Your task to perform on an android device: empty trash in the gmail app Image 0: 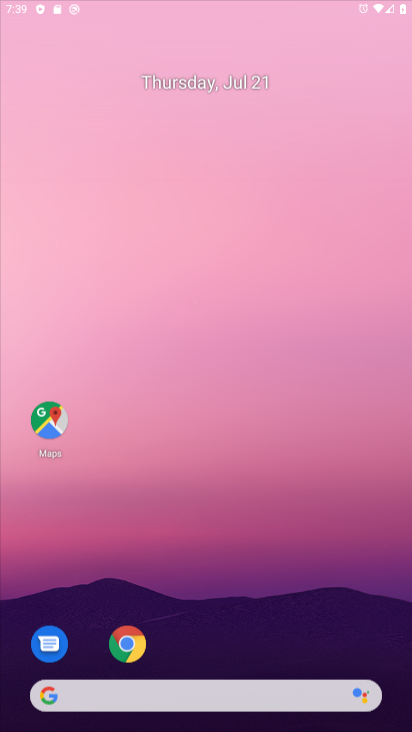
Step 0: click (244, 390)
Your task to perform on an android device: empty trash in the gmail app Image 1: 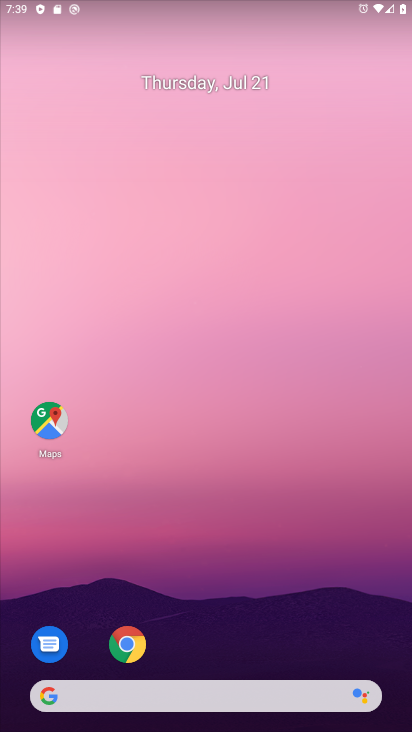
Step 1: drag from (229, 644) to (218, 212)
Your task to perform on an android device: empty trash in the gmail app Image 2: 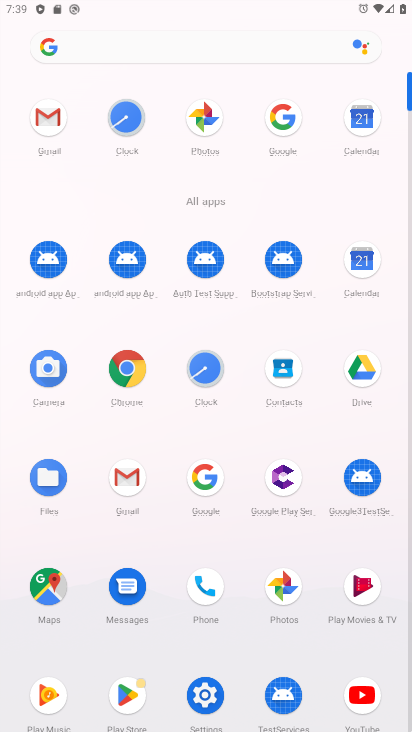
Step 2: click (121, 478)
Your task to perform on an android device: empty trash in the gmail app Image 3: 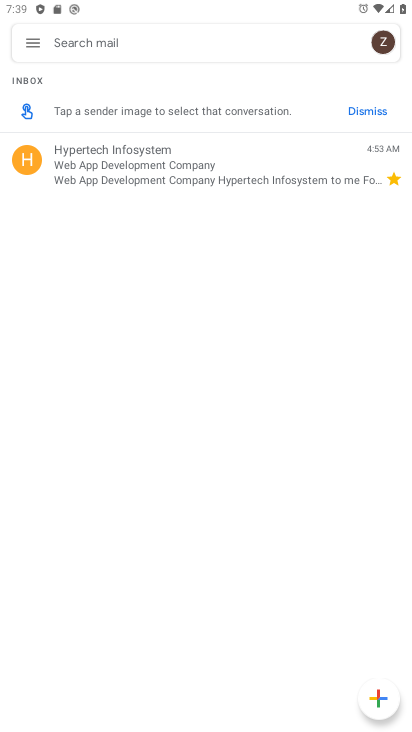
Step 3: click (38, 43)
Your task to perform on an android device: empty trash in the gmail app Image 4: 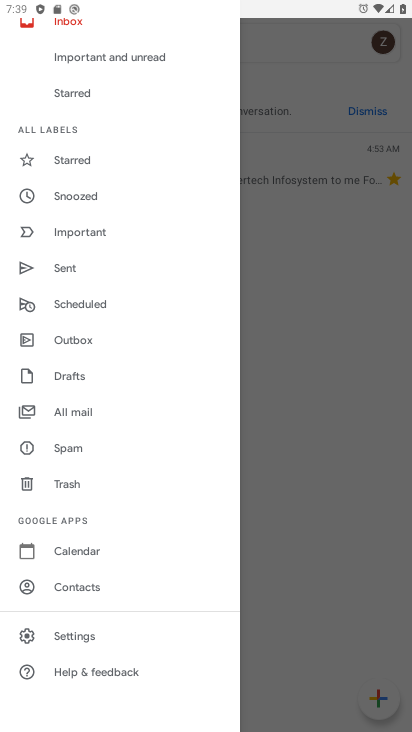
Step 4: click (67, 472)
Your task to perform on an android device: empty trash in the gmail app Image 5: 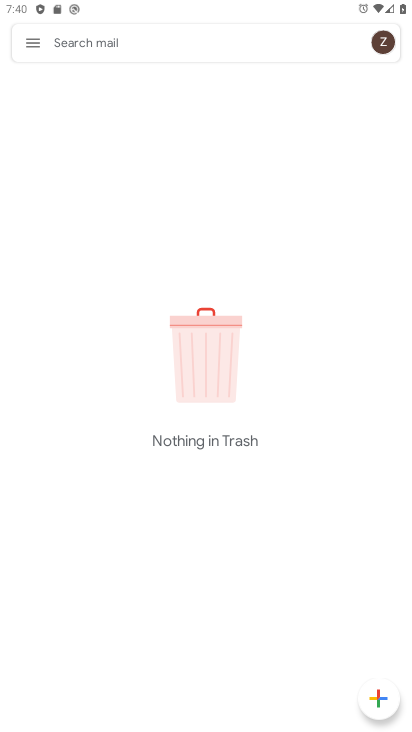
Step 5: task complete